Your task to perform on an android device: Clear all items from cart on target.com. Image 0: 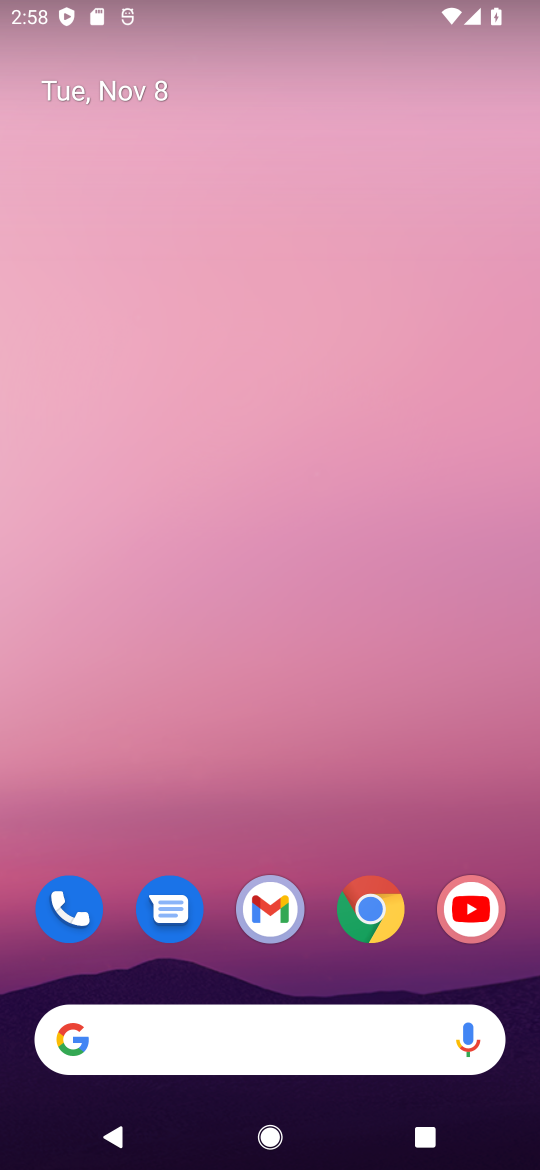
Step 0: click (373, 900)
Your task to perform on an android device: Clear all items from cart on target.com. Image 1: 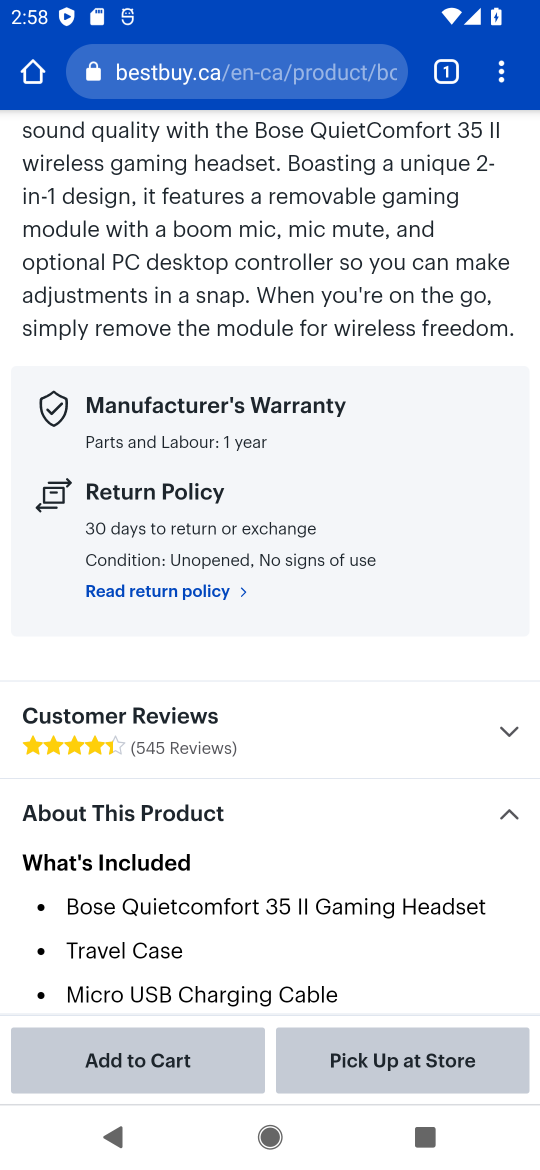
Step 1: click (253, 73)
Your task to perform on an android device: Clear all items from cart on target.com. Image 2: 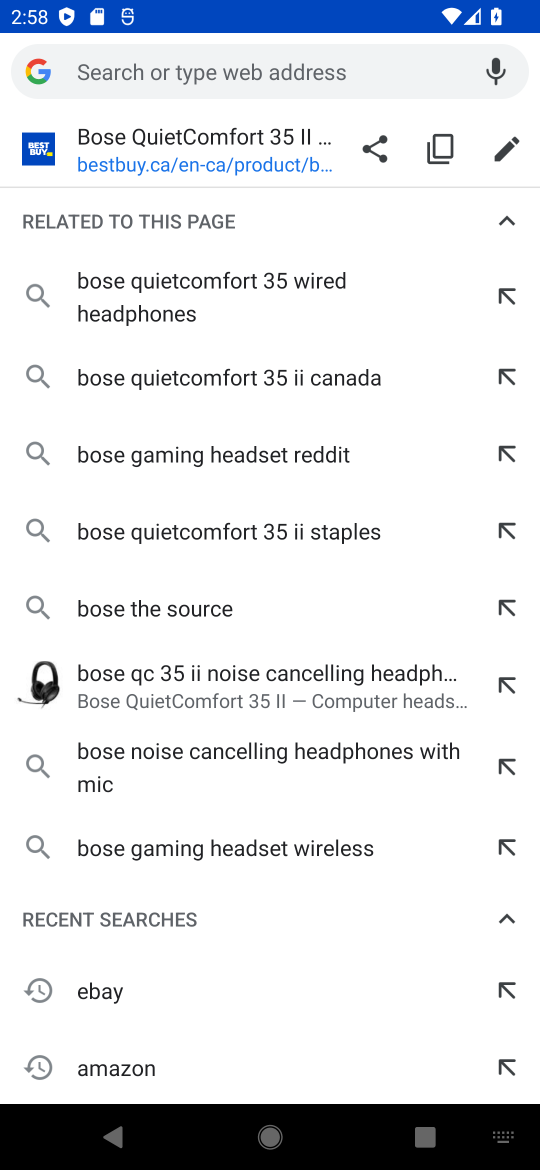
Step 2: type " target.com"
Your task to perform on an android device: Clear all items from cart on target.com. Image 3: 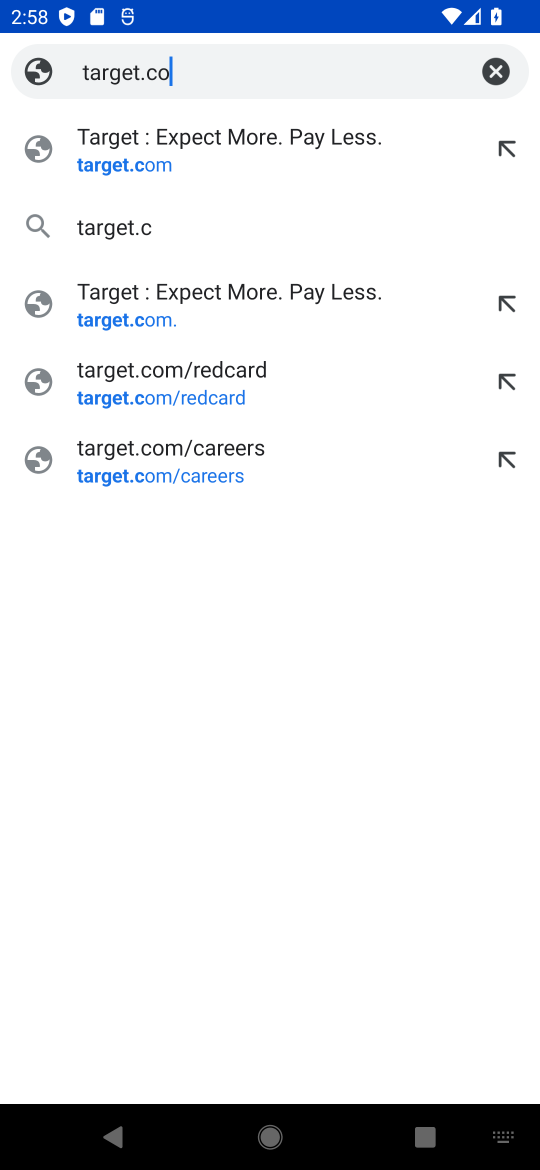
Step 3: press enter
Your task to perform on an android device: Clear all items from cart on target.com. Image 4: 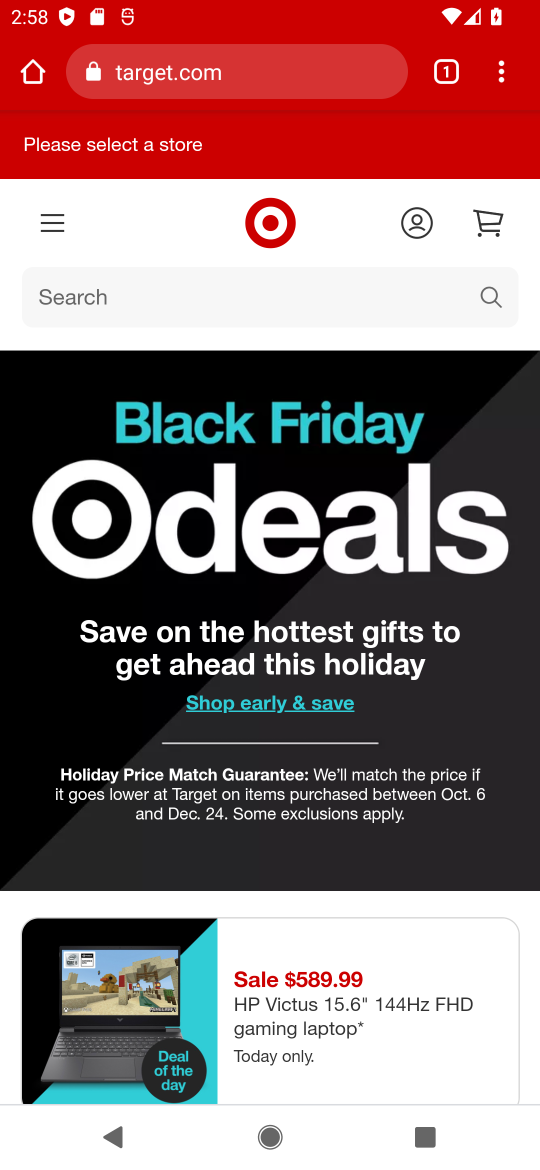
Step 4: click (482, 215)
Your task to perform on an android device: Clear all items from cart on target.com. Image 5: 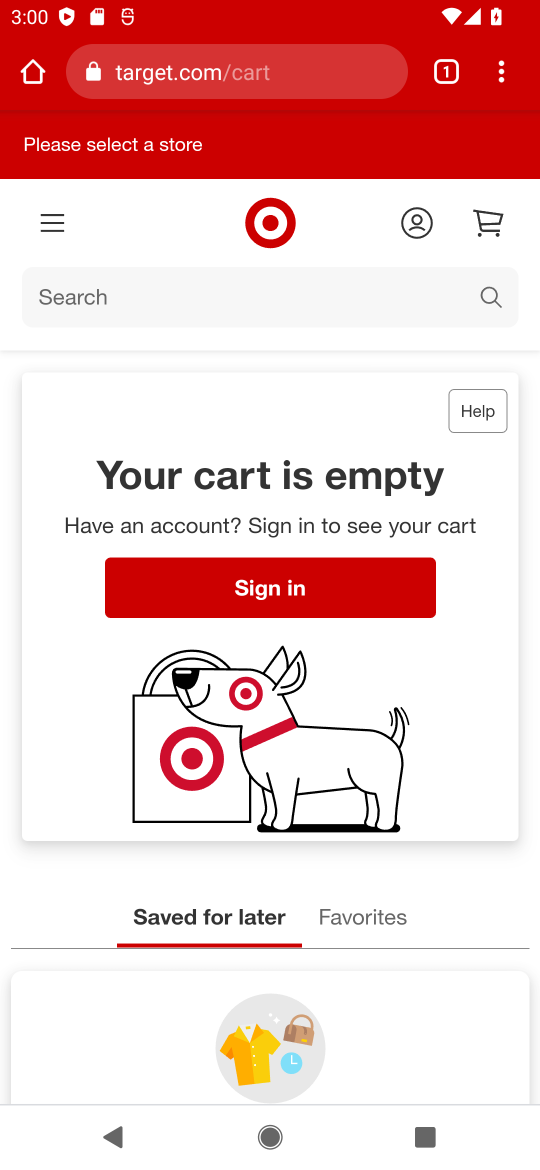
Step 5: task complete